Your task to perform on an android device: Add "macbook" to the cart on costco Image 0: 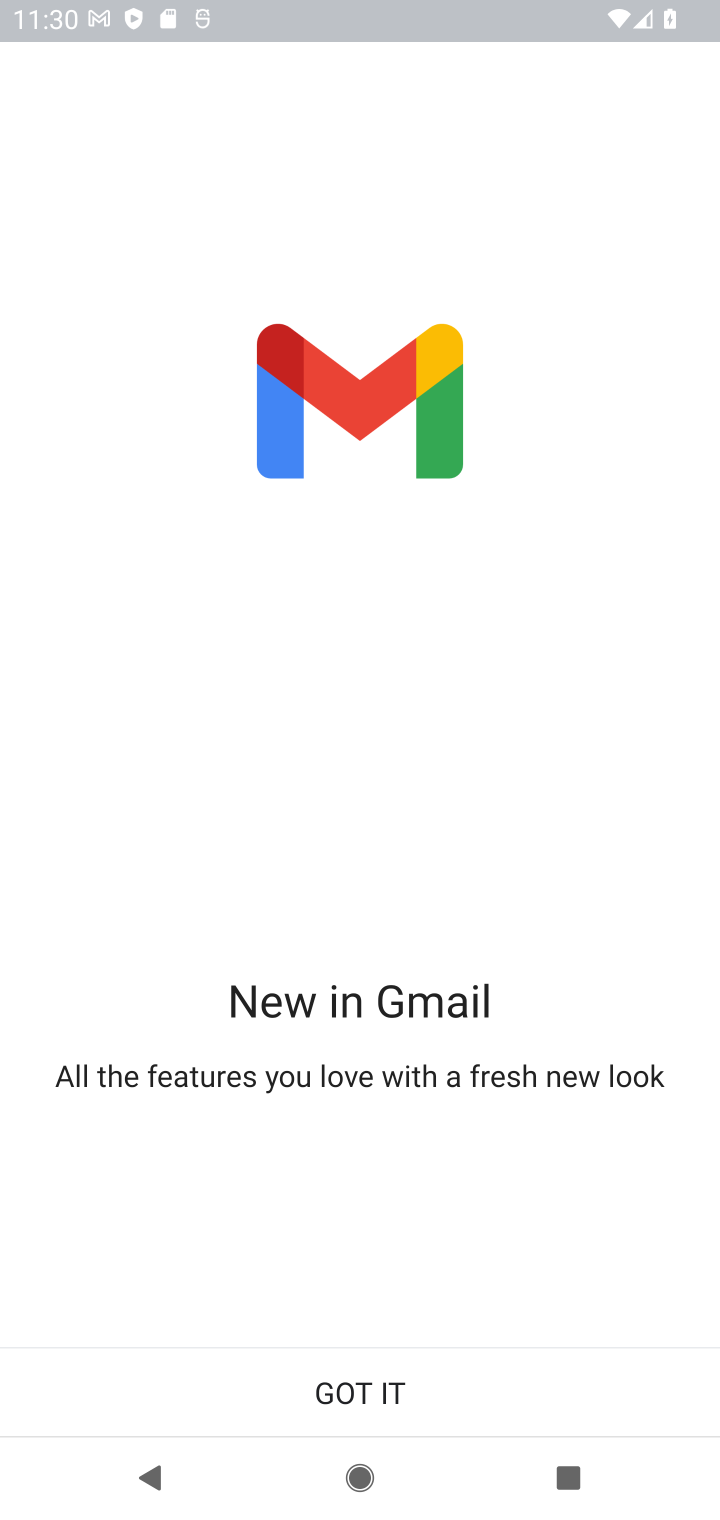
Step 0: press home button
Your task to perform on an android device: Add "macbook" to the cart on costco Image 1: 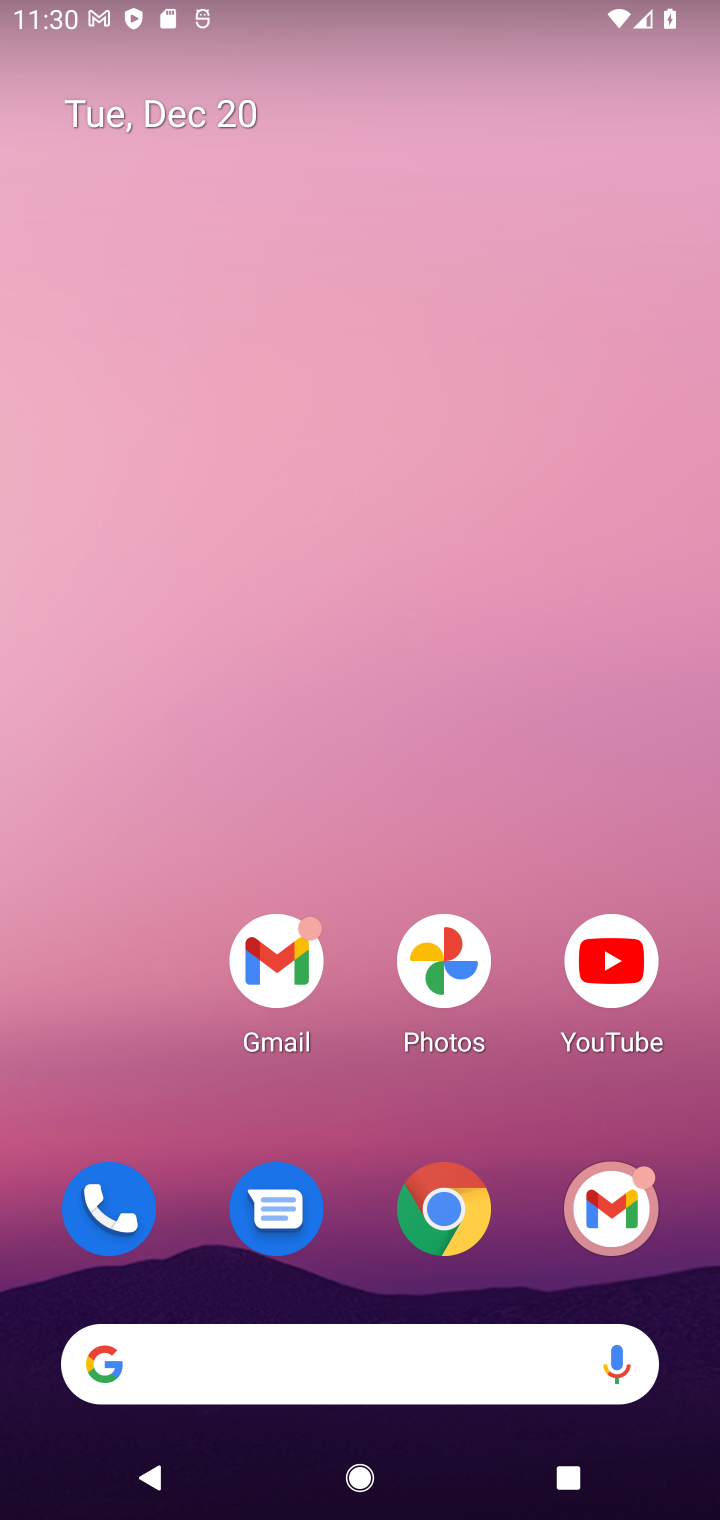
Step 1: click (448, 1210)
Your task to perform on an android device: Add "macbook" to the cart on costco Image 2: 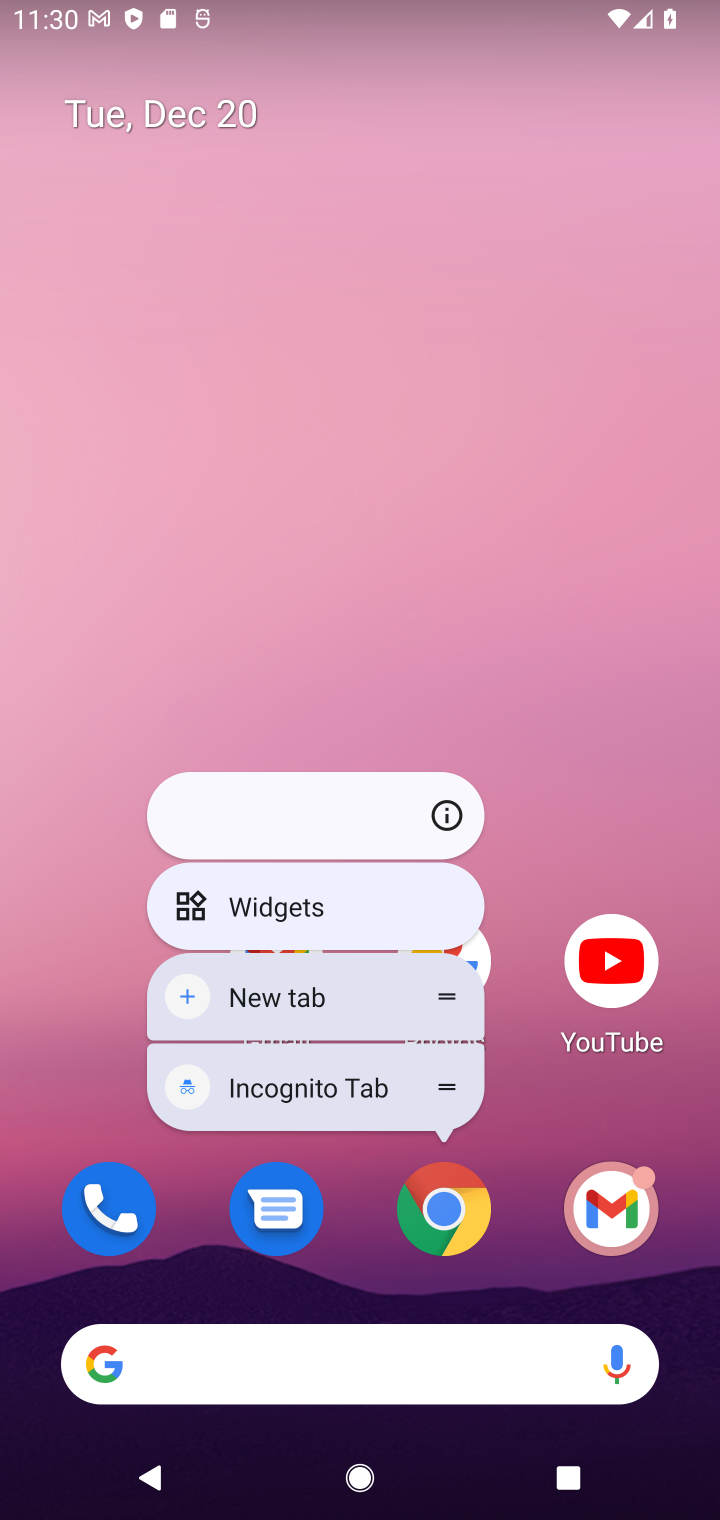
Step 2: click (448, 1210)
Your task to perform on an android device: Add "macbook" to the cart on costco Image 3: 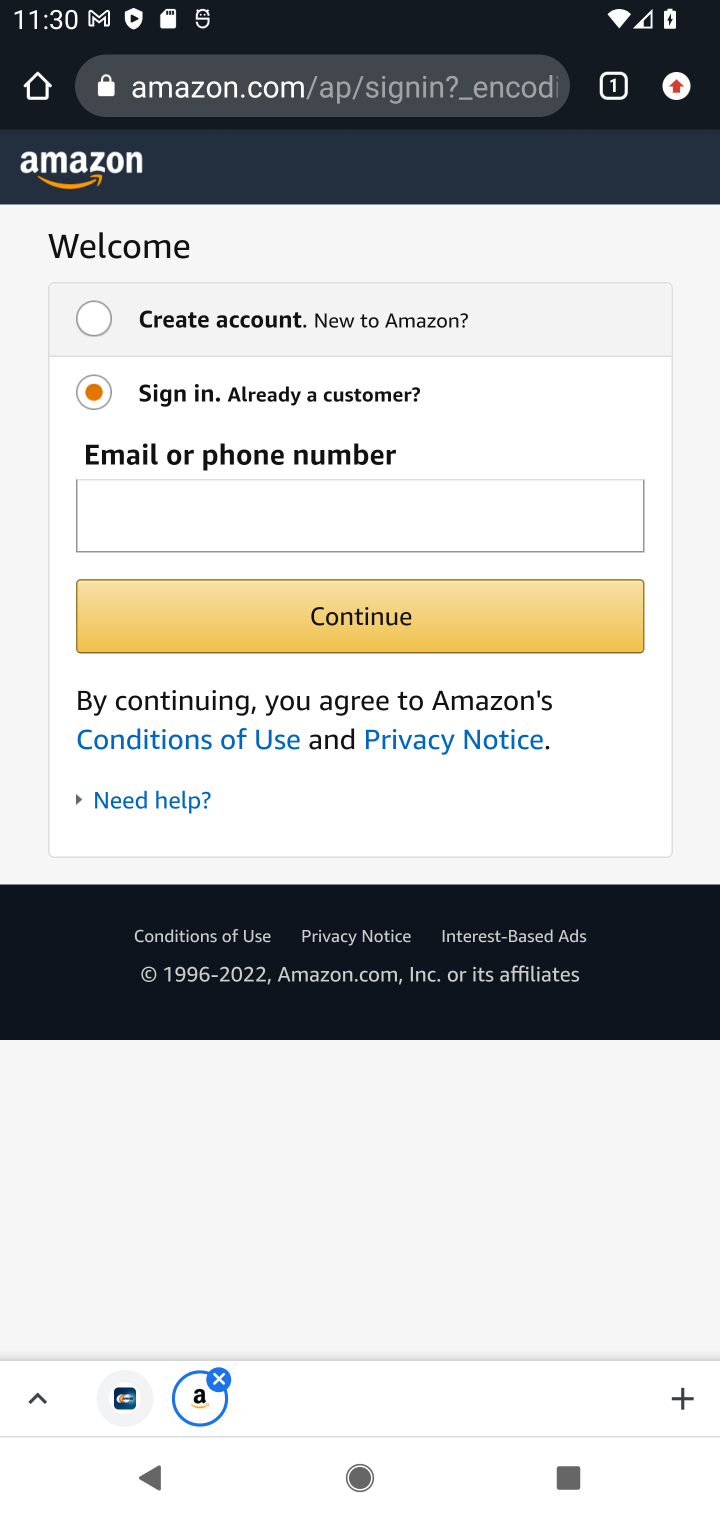
Step 3: click (256, 97)
Your task to perform on an android device: Add "macbook" to the cart on costco Image 4: 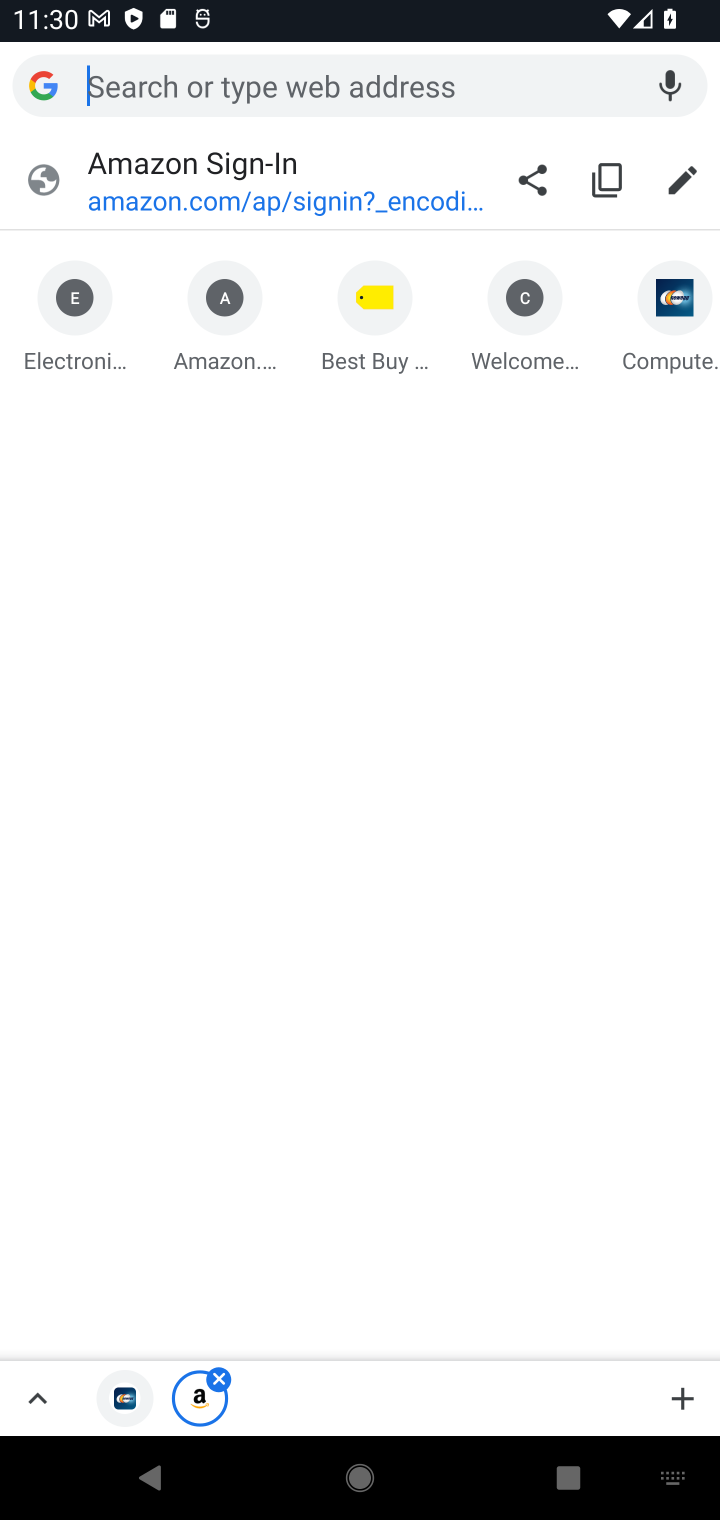
Step 4: type "costco.com"
Your task to perform on an android device: Add "macbook" to the cart on costco Image 5: 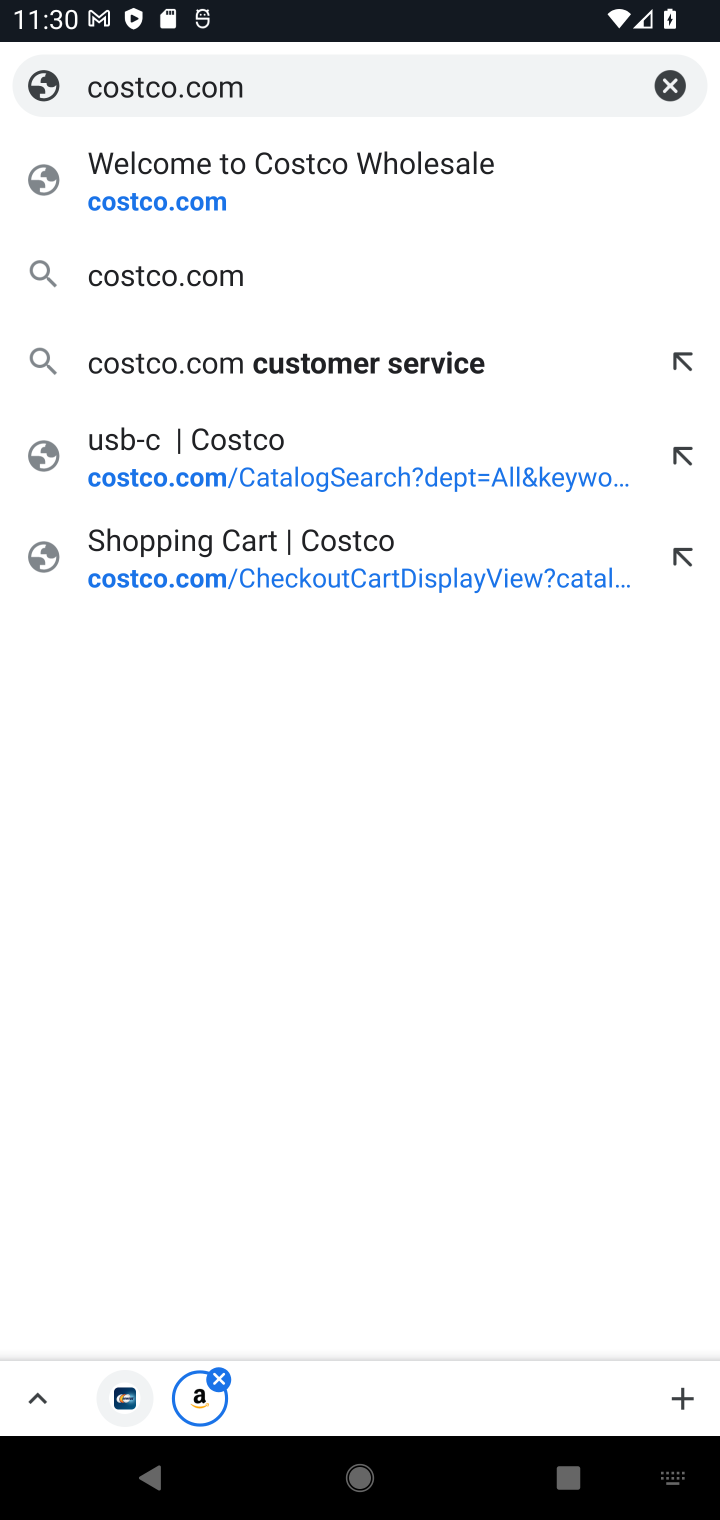
Step 5: click (193, 207)
Your task to perform on an android device: Add "macbook" to the cart on costco Image 6: 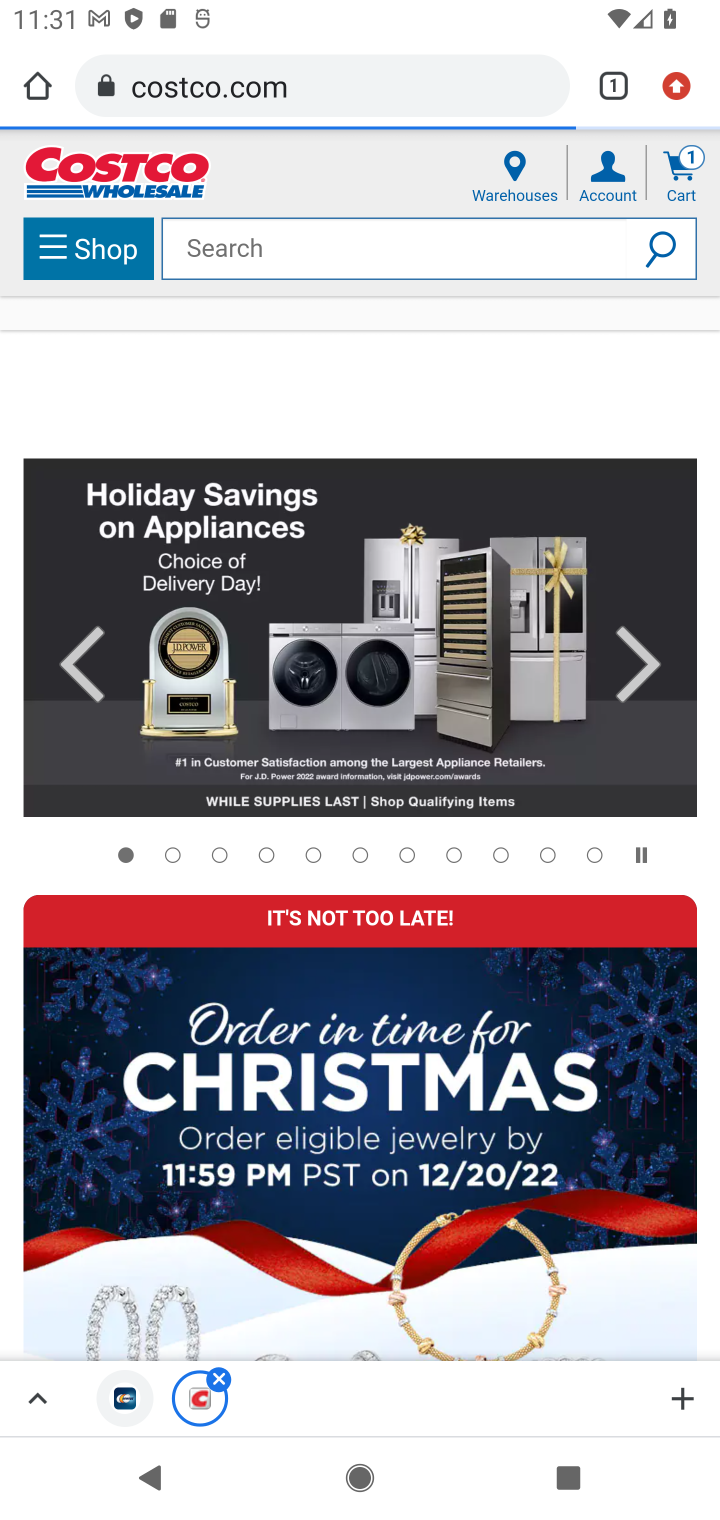
Step 6: click (221, 256)
Your task to perform on an android device: Add "macbook" to the cart on costco Image 7: 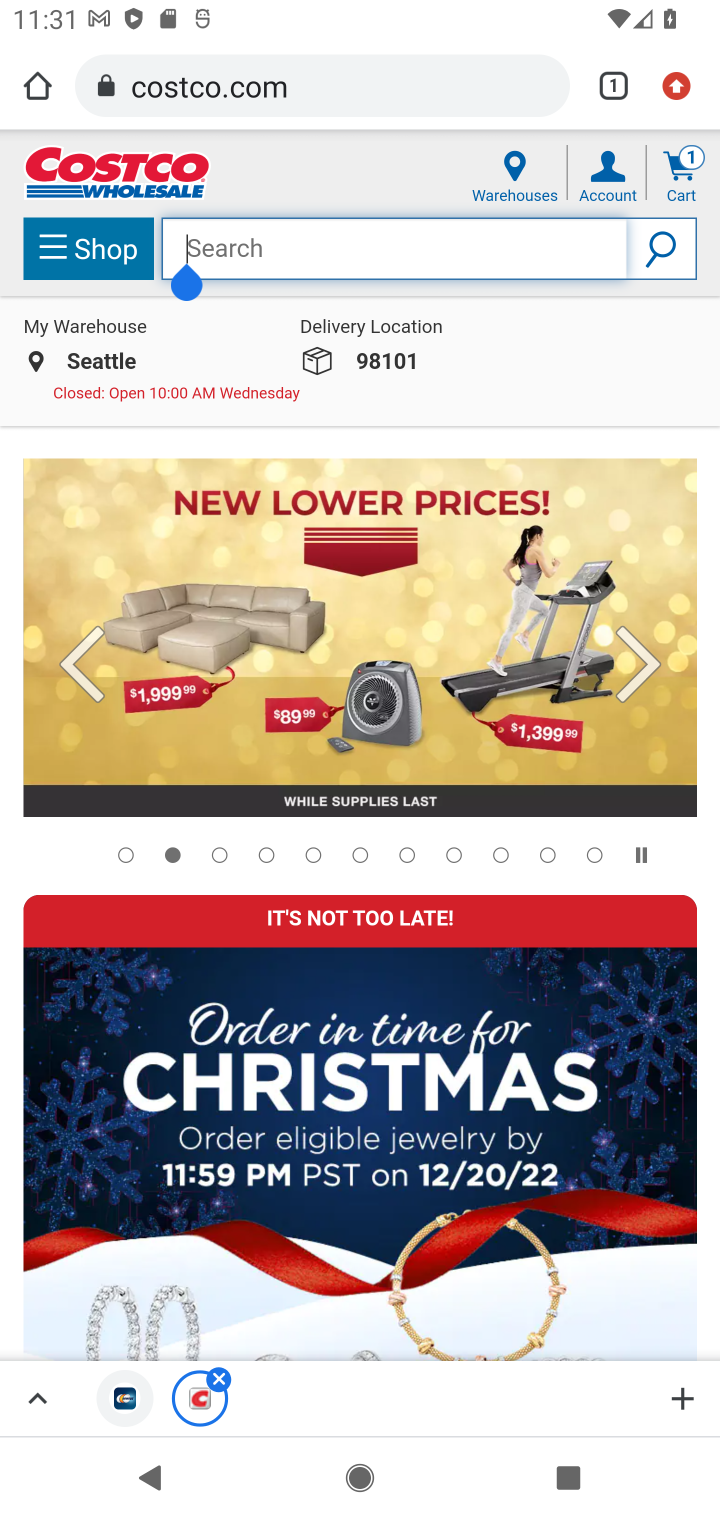
Step 7: type "macbook"
Your task to perform on an android device: Add "macbook" to the cart on costco Image 8: 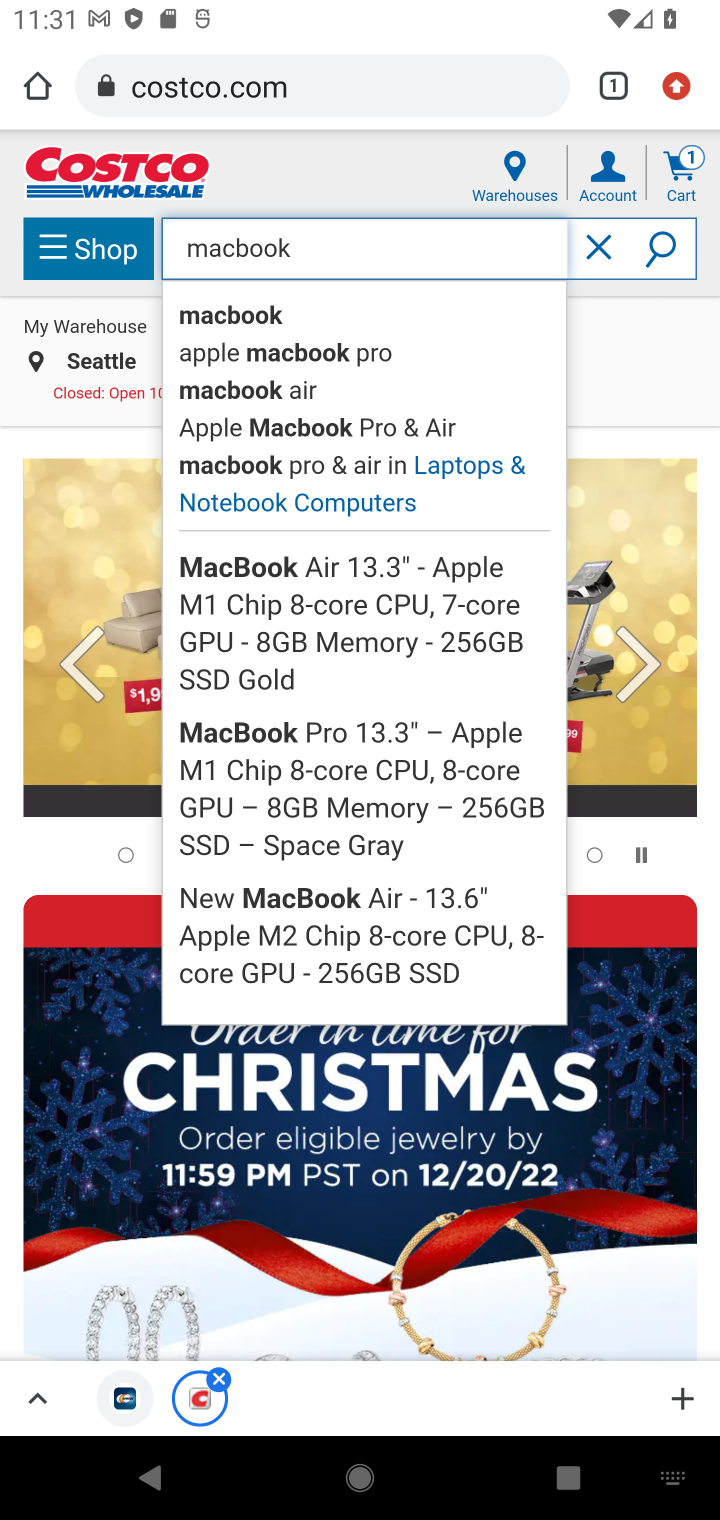
Step 8: click (670, 252)
Your task to perform on an android device: Add "macbook" to the cart on costco Image 9: 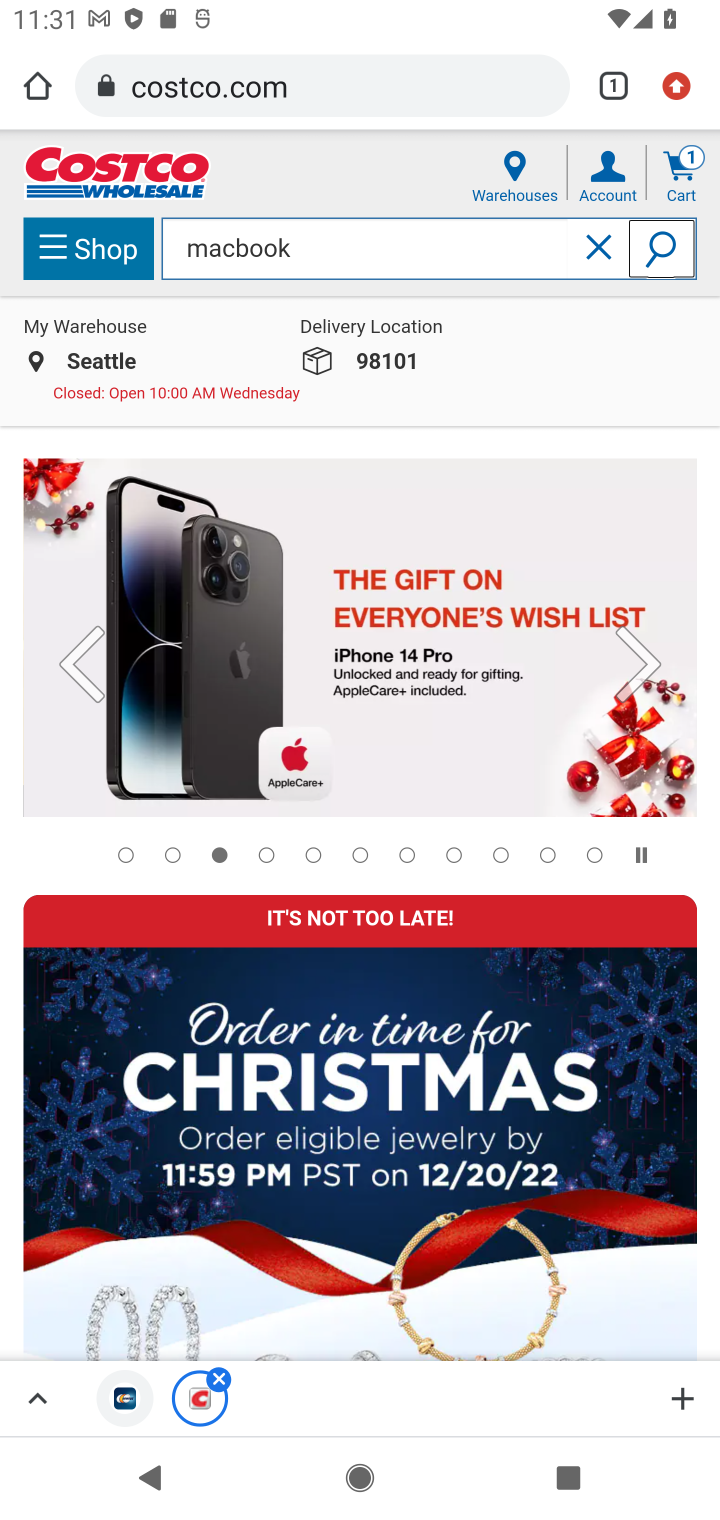
Step 9: click (665, 262)
Your task to perform on an android device: Add "macbook" to the cart on costco Image 10: 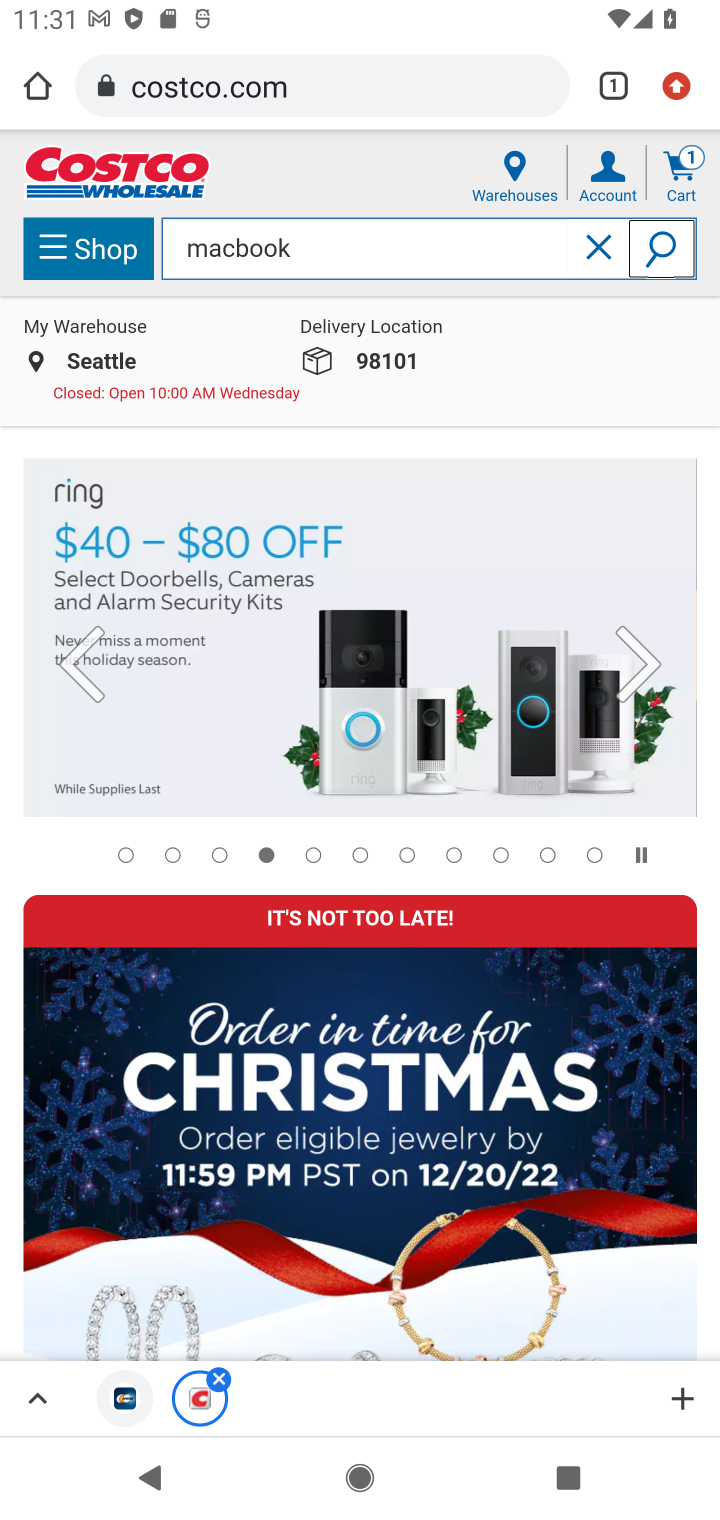
Step 10: click (656, 248)
Your task to perform on an android device: Add "macbook" to the cart on costco Image 11: 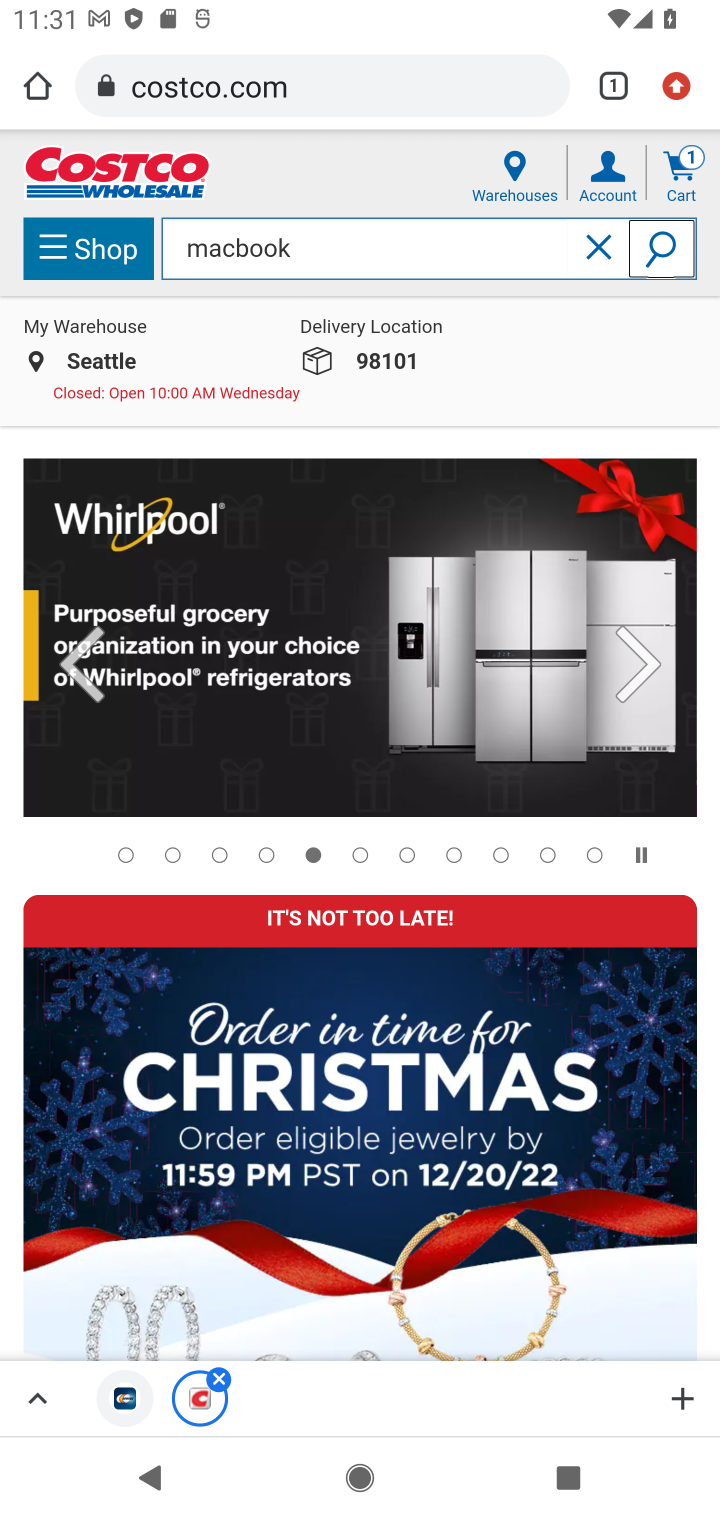
Step 11: click (656, 247)
Your task to perform on an android device: Add "macbook" to the cart on costco Image 12: 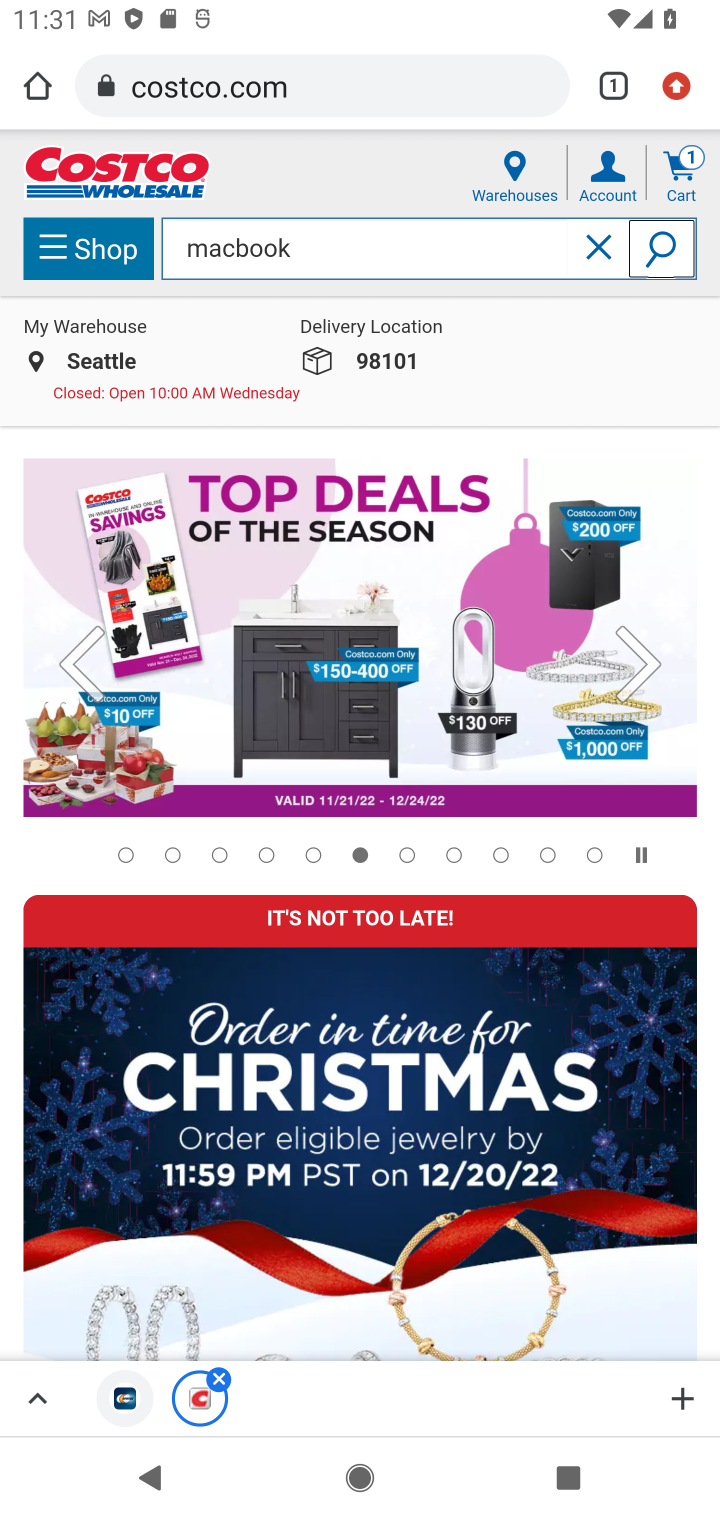
Step 12: click (665, 253)
Your task to perform on an android device: Add "macbook" to the cart on costco Image 13: 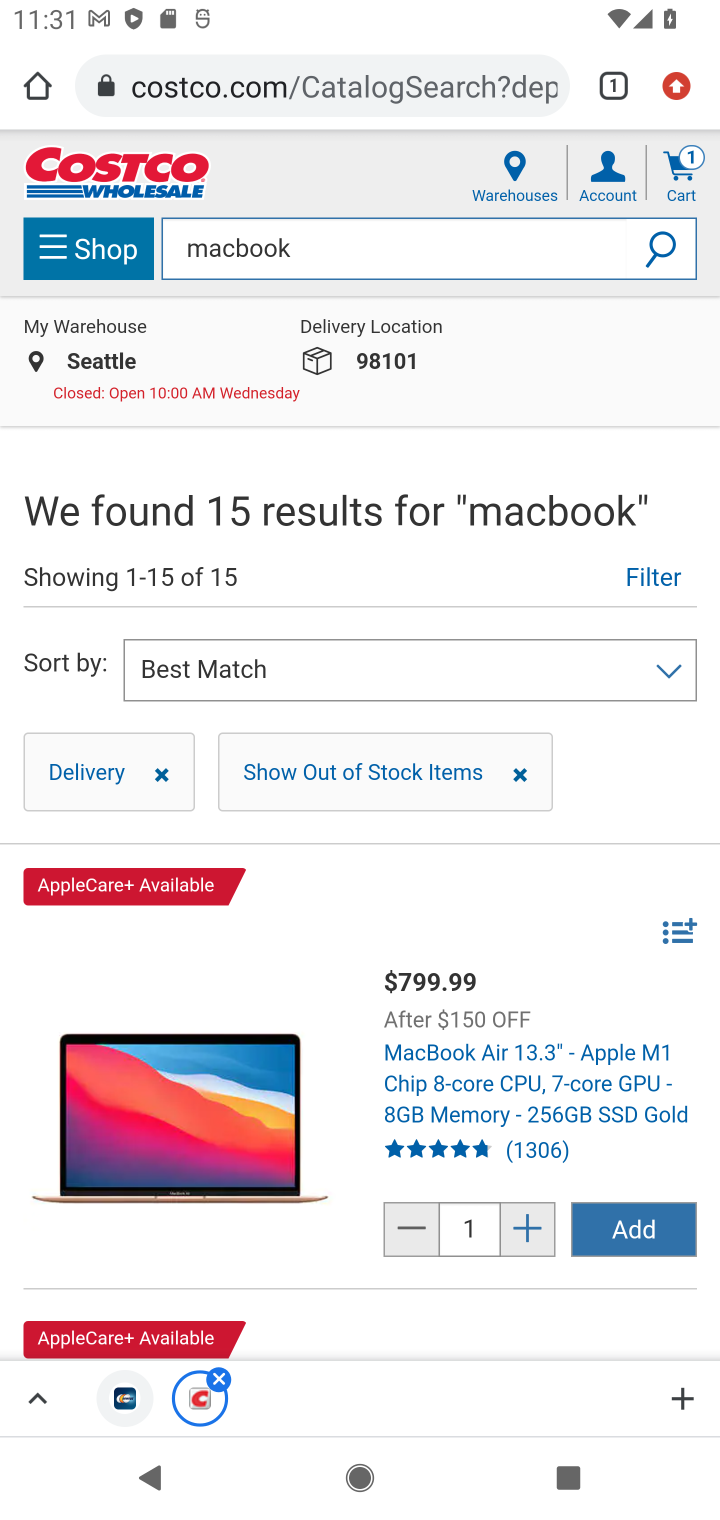
Step 13: click (647, 1227)
Your task to perform on an android device: Add "macbook" to the cart on costco Image 14: 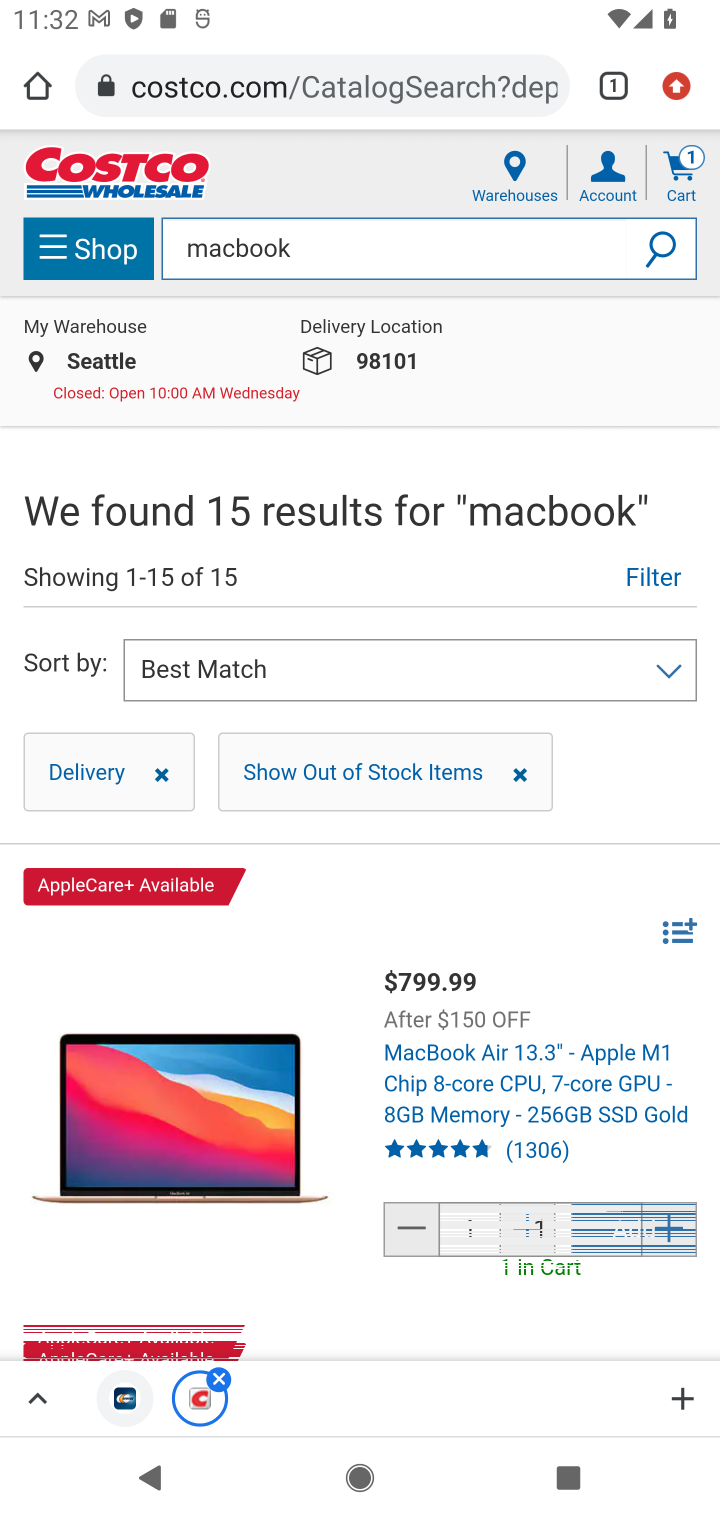
Step 14: task complete